Your task to perform on an android device: Open privacy settings Image 0: 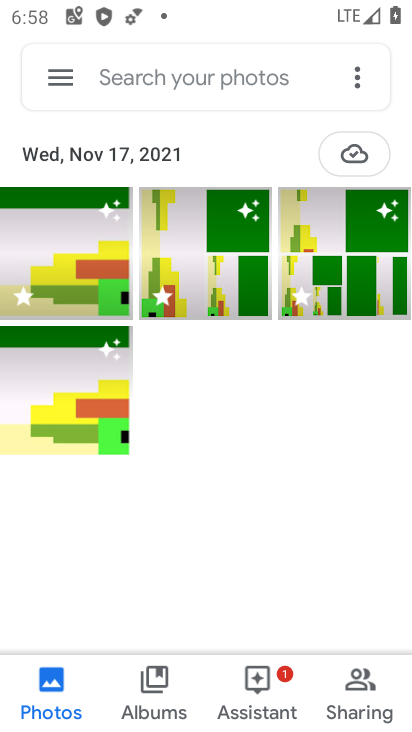
Step 0: press home button
Your task to perform on an android device: Open privacy settings Image 1: 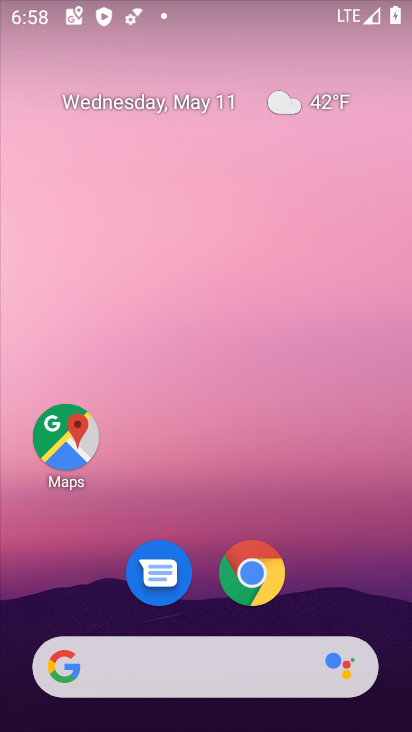
Step 1: drag from (322, 588) to (338, 234)
Your task to perform on an android device: Open privacy settings Image 2: 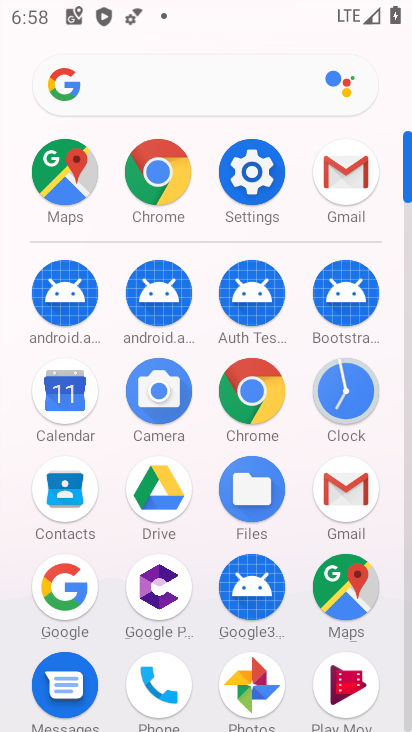
Step 2: click (254, 207)
Your task to perform on an android device: Open privacy settings Image 3: 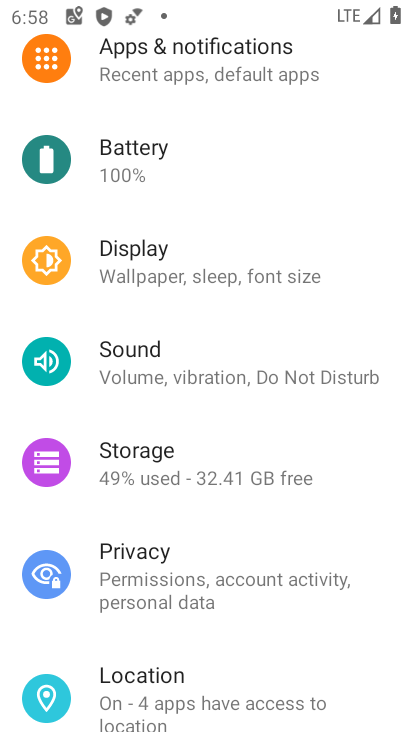
Step 3: click (140, 583)
Your task to perform on an android device: Open privacy settings Image 4: 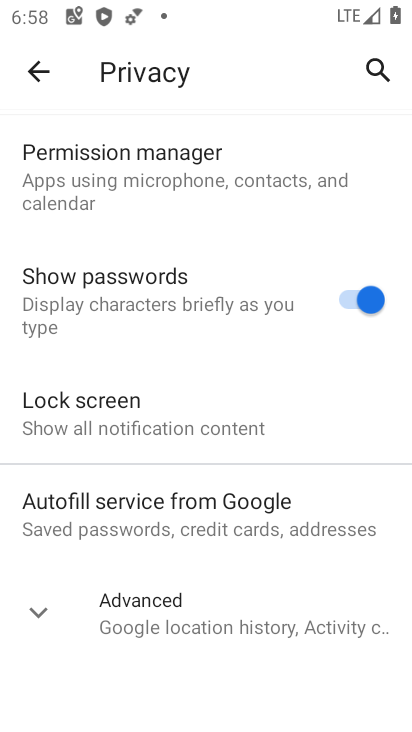
Step 4: task complete